Your task to perform on an android device: Go to Maps Image 0: 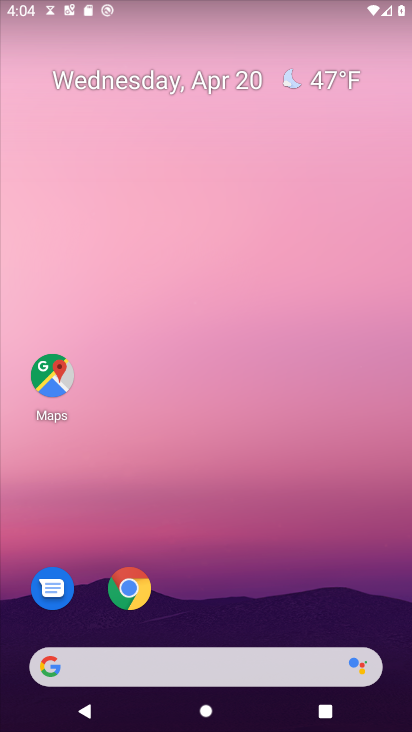
Step 0: drag from (240, 607) to (354, 112)
Your task to perform on an android device: Go to Maps Image 1: 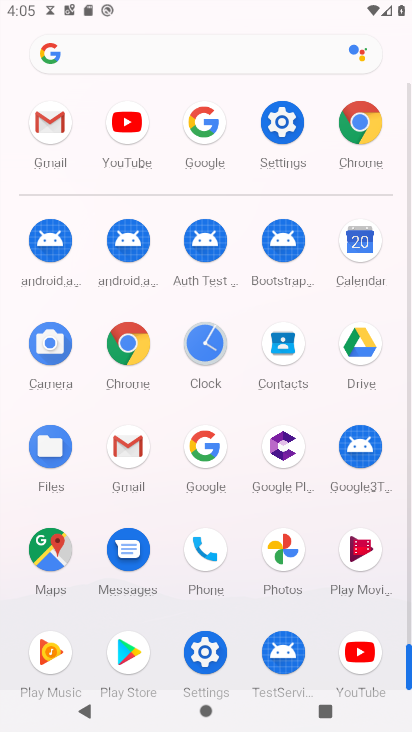
Step 1: click (45, 553)
Your task to perform on an android device: Go to Maps Image 2: 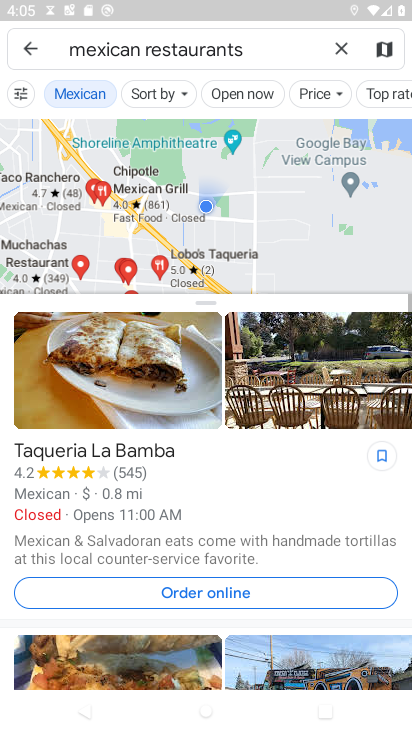
Step 2: click (33, 49)
Your task to perform on an android device: Go to Maps Image 3: 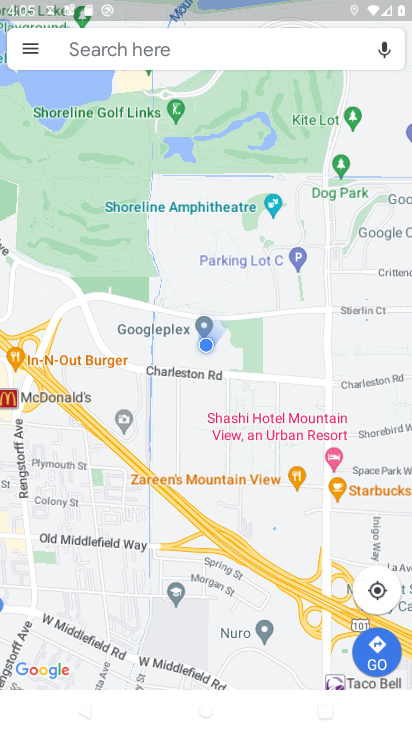
Step 3: task complete